Your task to perform on an android device: add a contact Image 0: 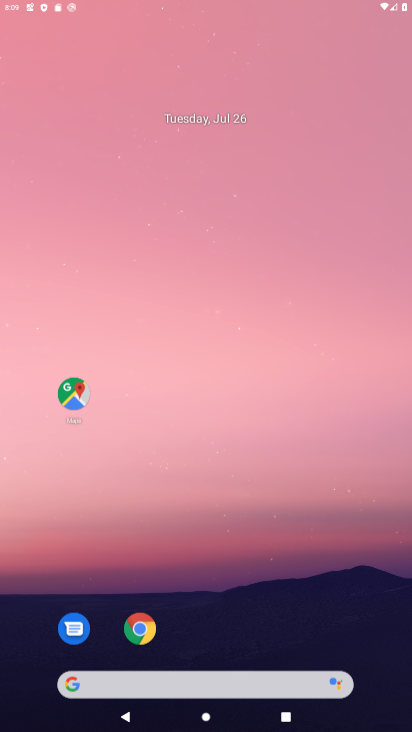
Step 0: press home button
Your task to perform on an android device: add a contact Image 1: 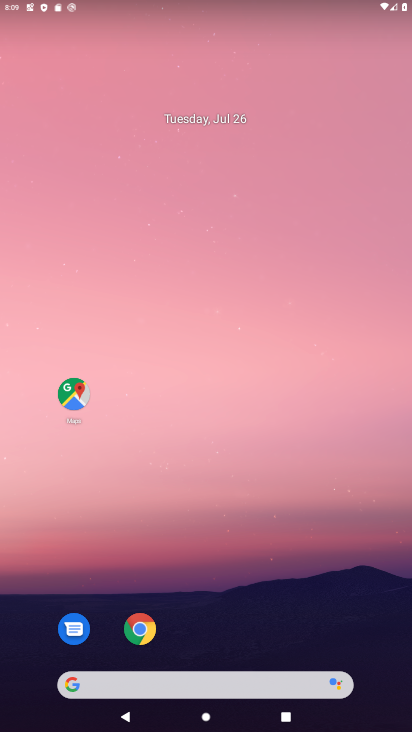
Step 1: drag from (221, 655) to (162, 9)
Your task to perform on an android device: add a contact Image 2: 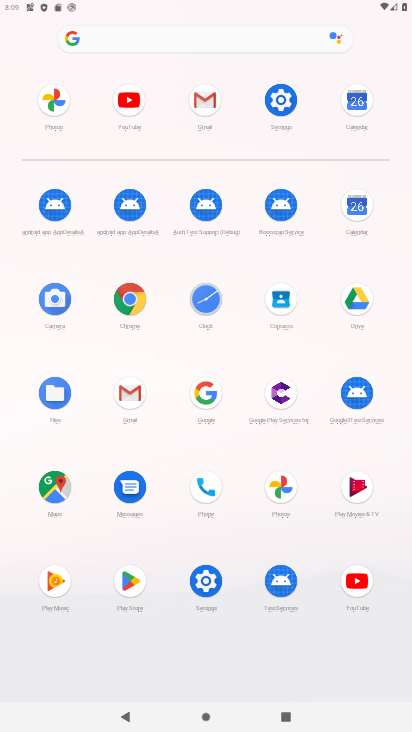
Step 2: click (281, 296)
Your task to perform on an android device: add a contact Image 3: 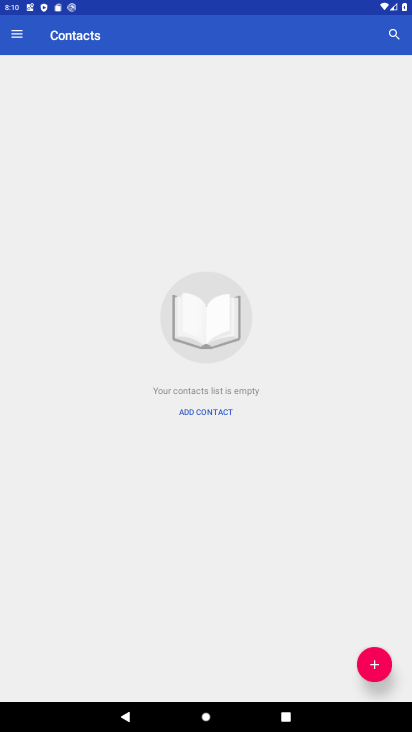
Step 3: click (374, 666)
Your task to perform on an android device: add a contact Image 4: 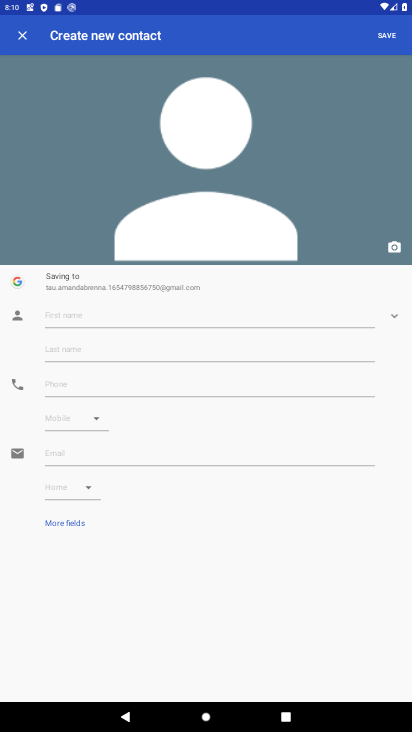
Step 4: click (64, 316)
Your task to perform on an android device: add a contact Image 5: 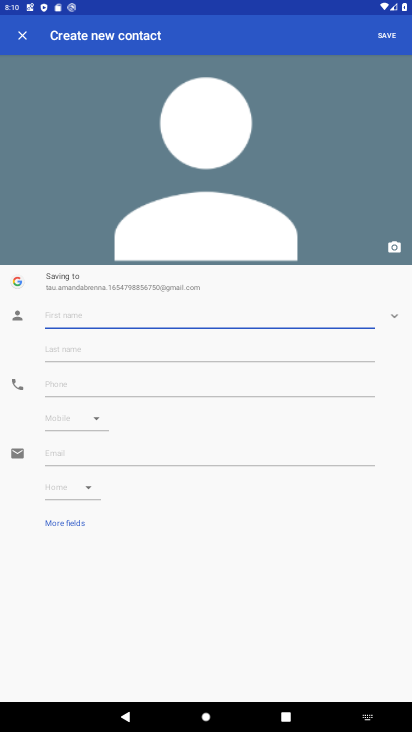
Step 5: type "fyrsru"
Your task to perform on an android device: add a contact Image 6: 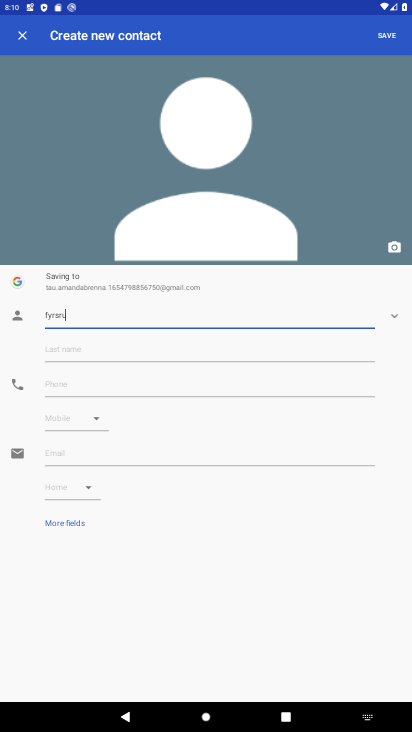
Step 6: click (387, 32)
Your task to perform on an android device: add a contact Image 7: 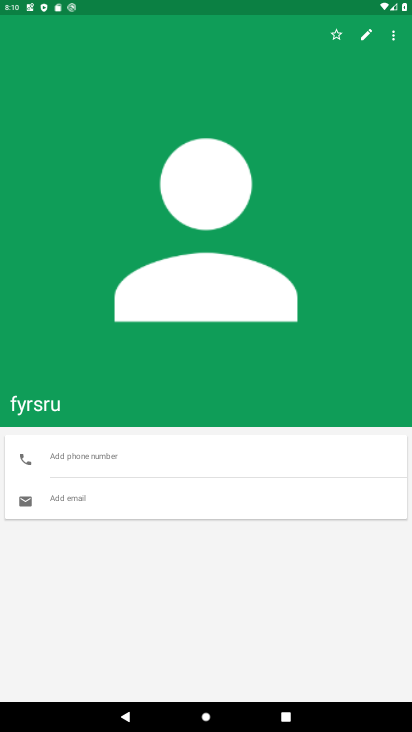
Step 7: task complete